Your task to perform on an android device: manage bookmarks in the chrome app Image 0: 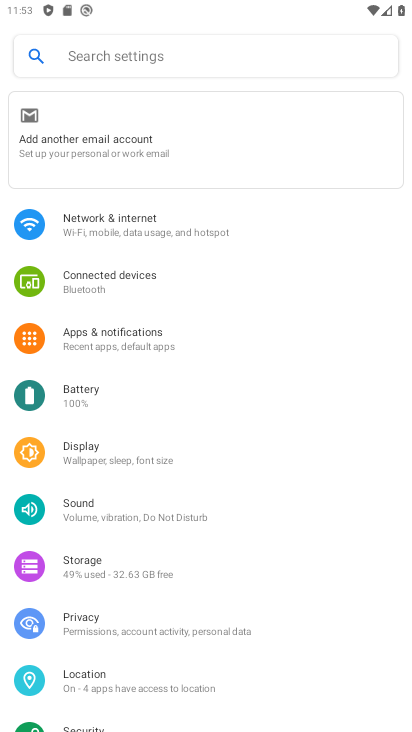
Step 0: press home button
Your task to perform on an android device: manage bookmarks in the chrome app Image 1: 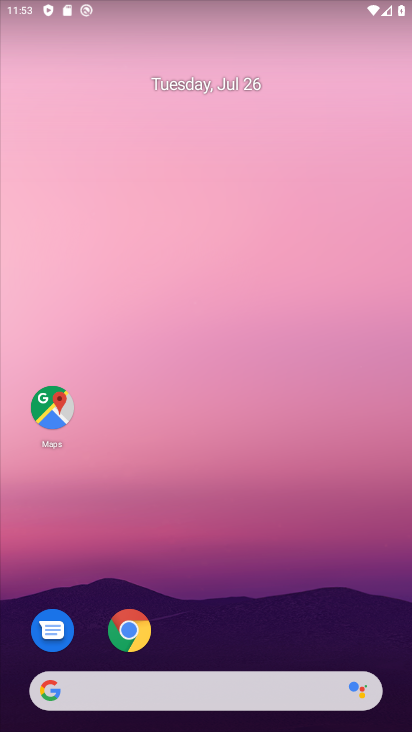
Step 1: click (132, 621)
Your task to perform on an android device: manage bookmarks in the chrome app Image 2: 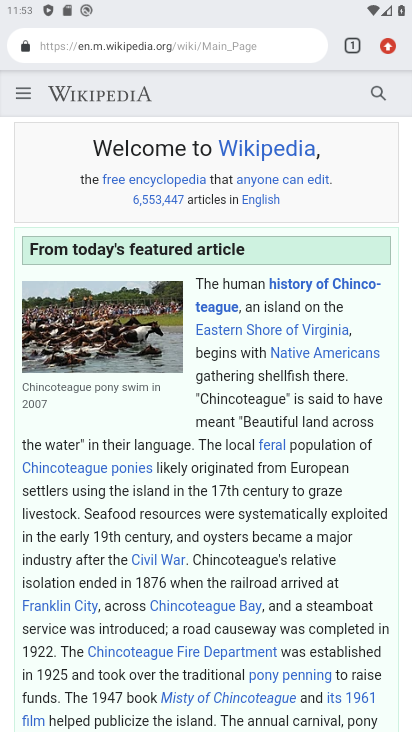
Step 2: click (386, 50)
Your task to perform on an android device: manage bookmarks in the chrome app Image 3: 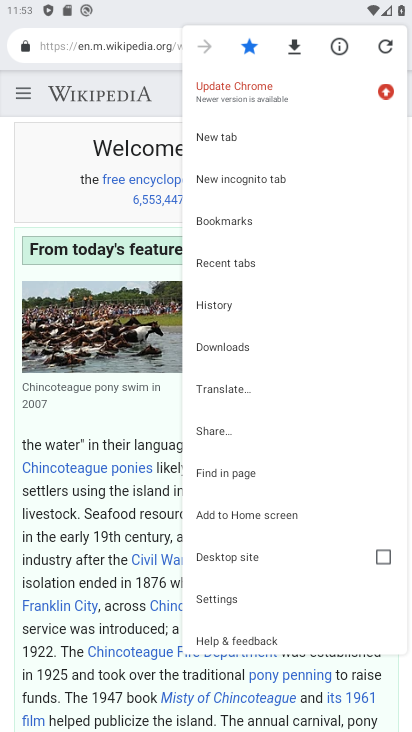
Step 3: click (231, 222)
Your task to perform on an android device: manage bookmarks in the chrome app Image 4: 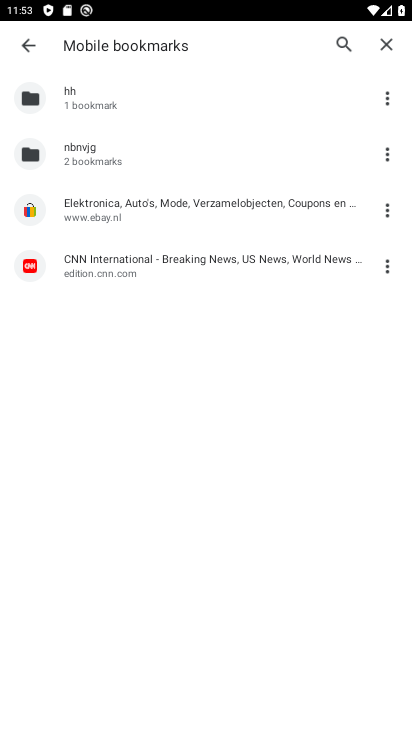
Step 4: click (389, 265)
Your task to perform on an android device: manage bookmarks in the chrome app Image 5: 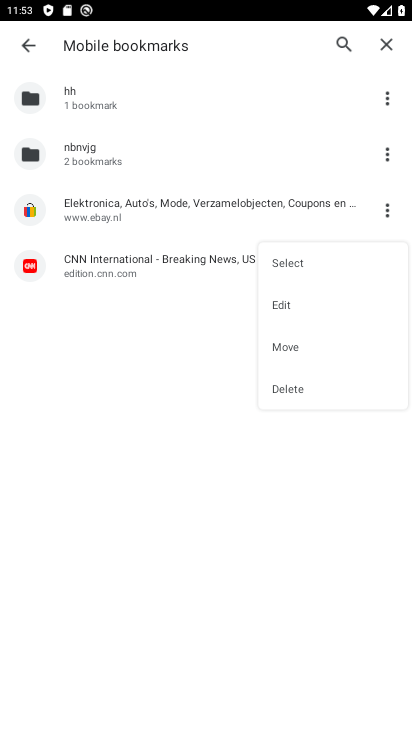
Step 5: click (313, 388)
Your task to perform on an android device: manage bookmarks in the chrome app Image 6: 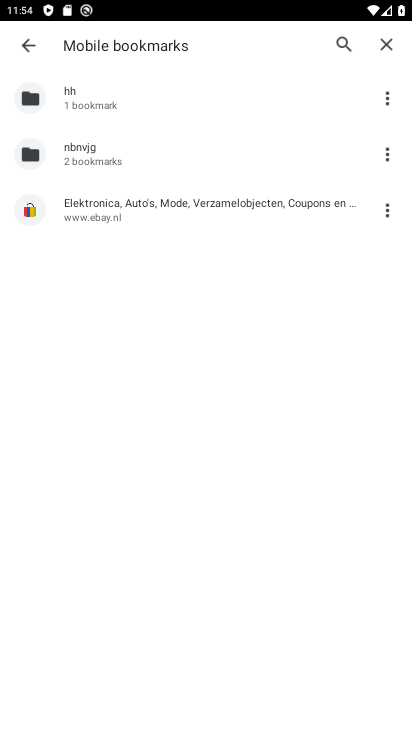
Step 6: task complete